Your task to perform on an android device: change alarm snooze length Image 0: 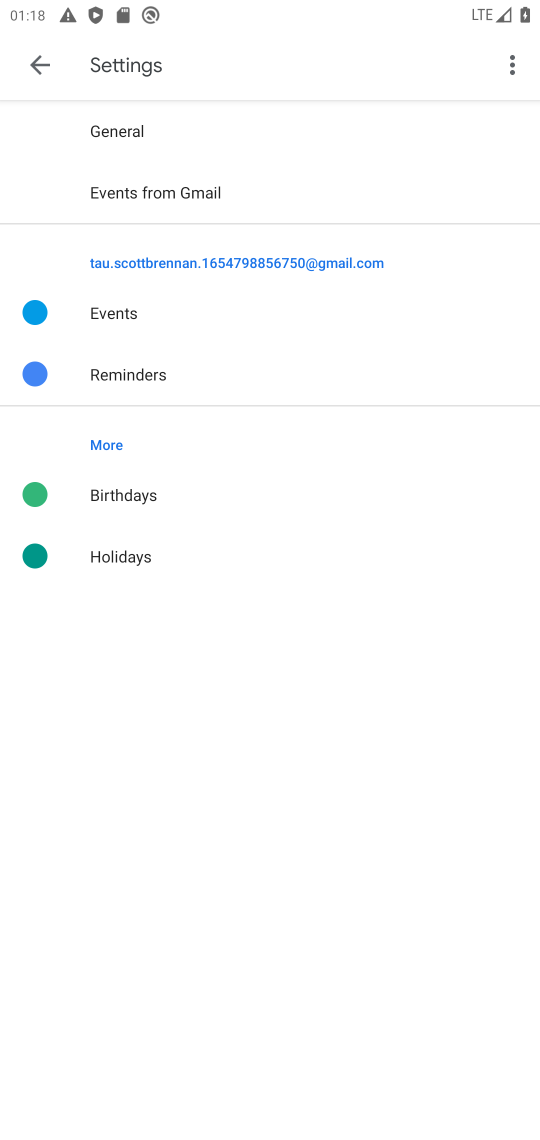
Step 0: press home button
Your task to perform on an android device: change alarm snooze length Image 1: 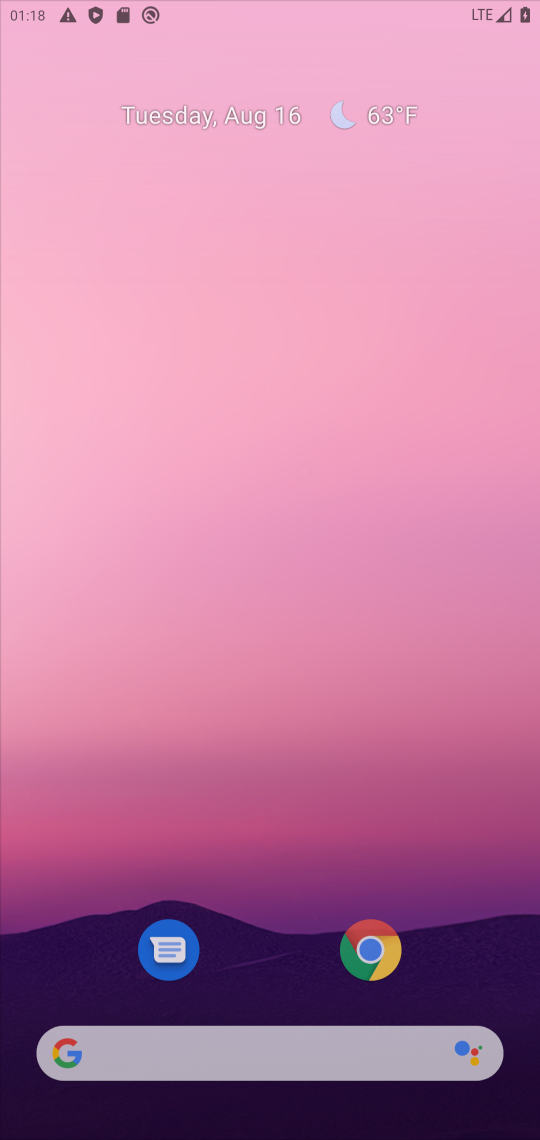
Step 1: drag from (265, 969) to (422, 346)
Your task to perform on an android device: change alarm snooze length Image 2: 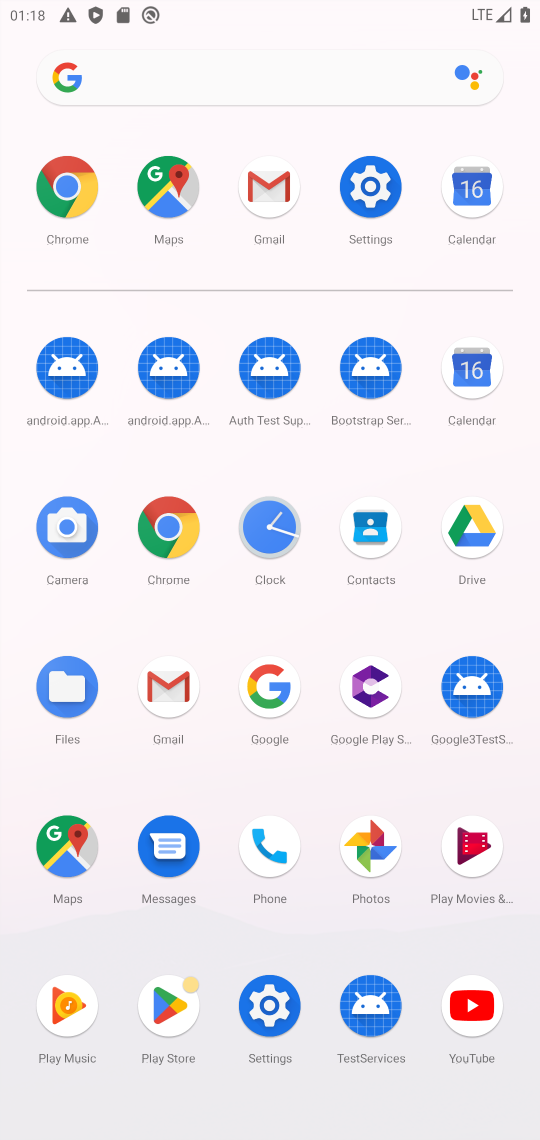
Step 2: click (297, 547)
Your task to perform on an android device: change alarm snooze length Image 3: 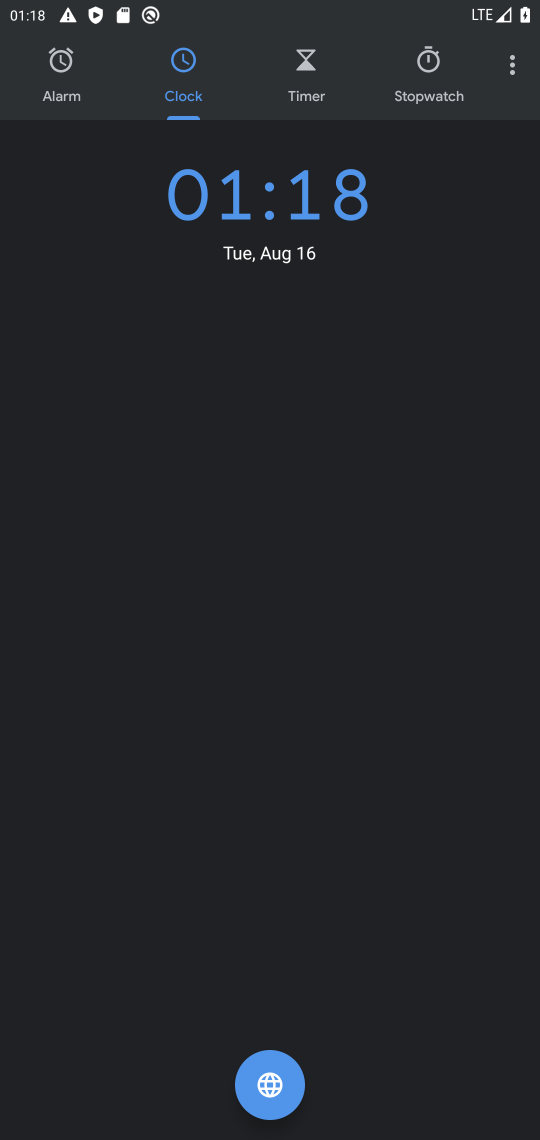
Step 3: click (511, 70)
Your task to perform on an android device: change alarm snooze length Image 4: 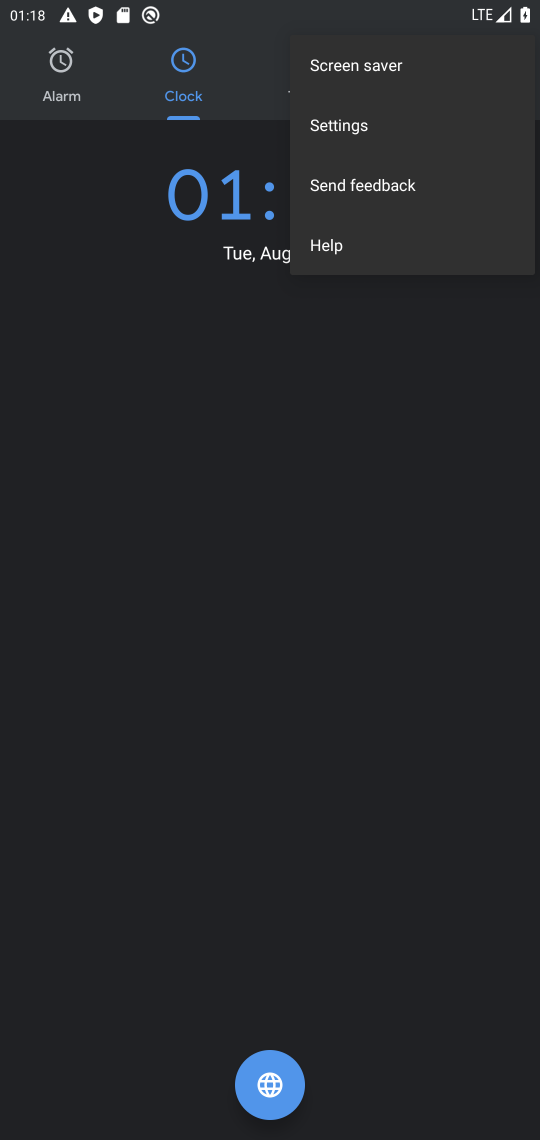
Step 4: click (344, 124)
Your task to perform on an android device: change alarm snooze length Image 5: 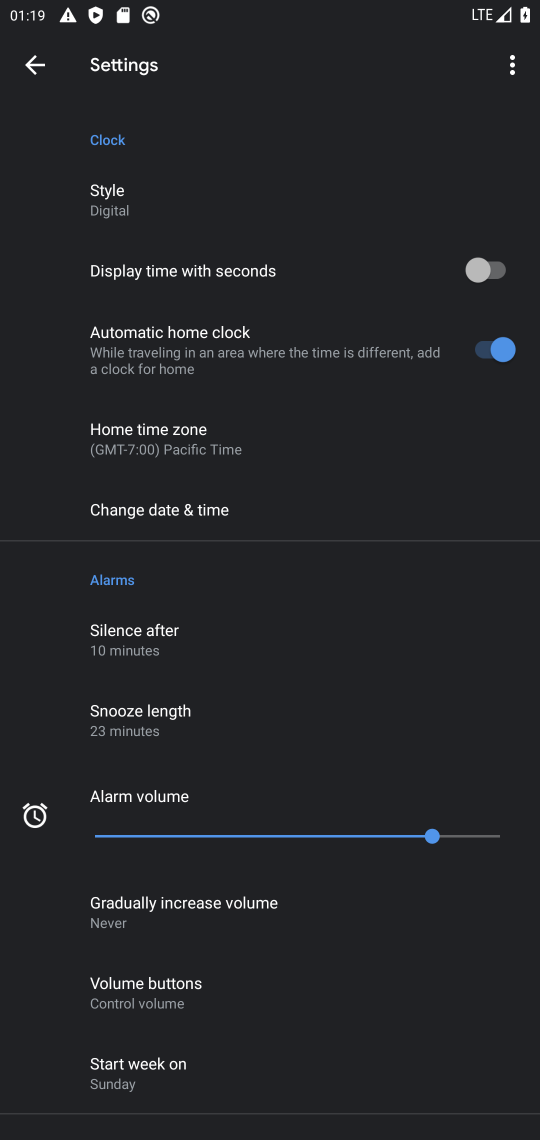
Step 5: click (172, 739)
Your task to perform on an android device: change alarm snooze length Image 6: 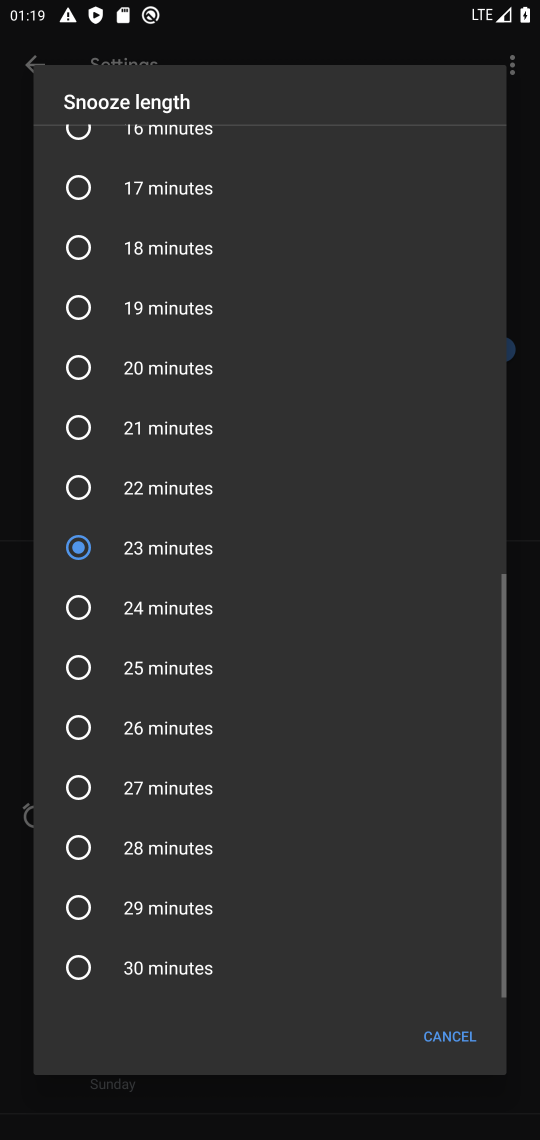
Step 6: click (172, 739)
Your task to perform on an android device: change alarm snooze length Image 7: 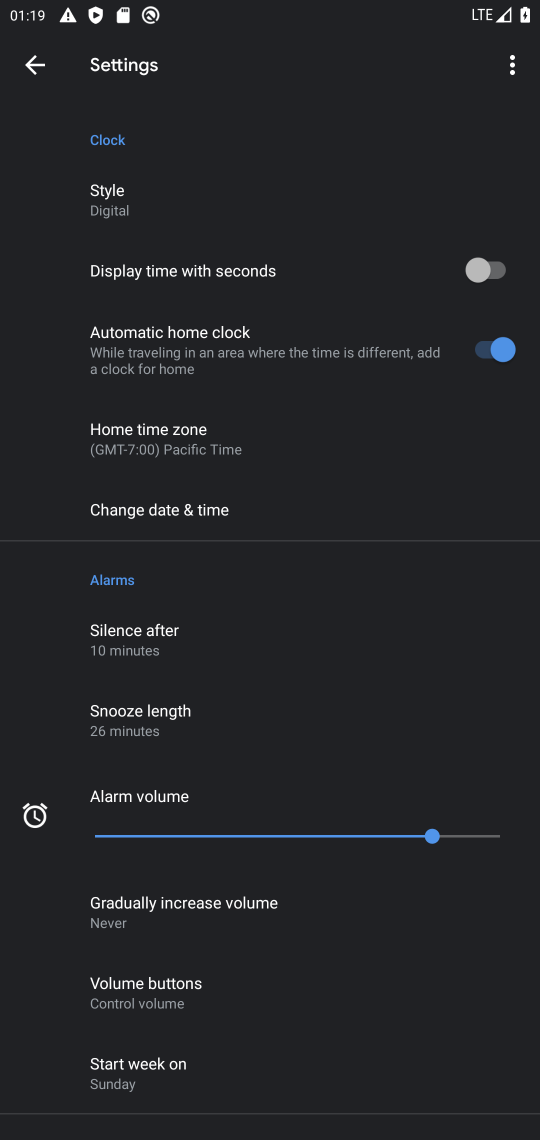
Step 7: task complete